Your task to perform on an android device: Open Google Chrome and click the shortcut for Amazon.com Image 0: 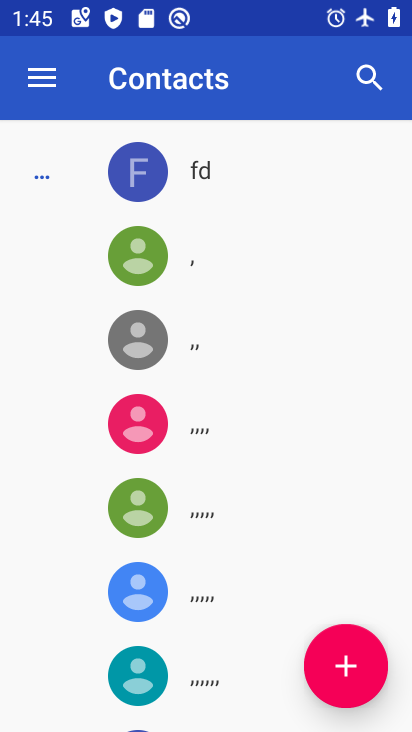
Step 0: press home button
Your task to perform on an android device: Open Google Chrome and click the shortcut for Amazon.com Image 1: 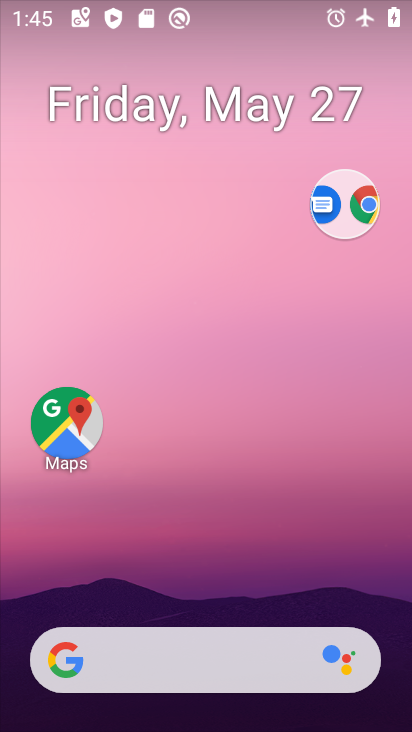
Step 1: drag from (178, 603) to (218, 225)
Your task to perform on an android device: Open Google Chrome and click the shortcut for Amazon.com Image 2: 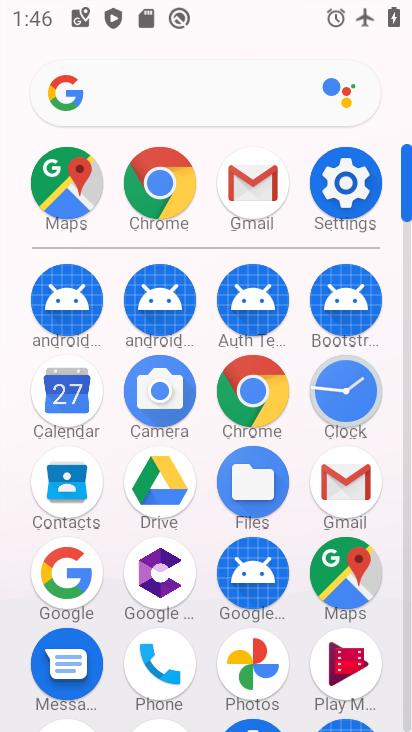
Step 2: click (252, 399)
Your task to perform on an android device: Open Google Chrome and click the shortcut for Amazon.com Image 3: 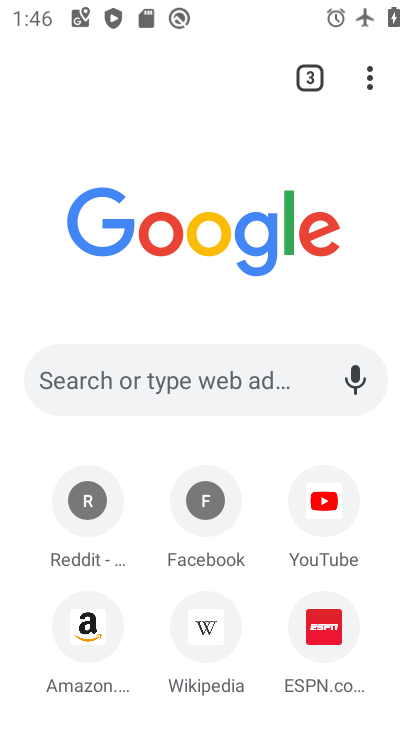
Step 3: click (219, 376)
Your task to perform on an android device: Open Google Chrome and click the shortcut for Amazon.com Image 4: 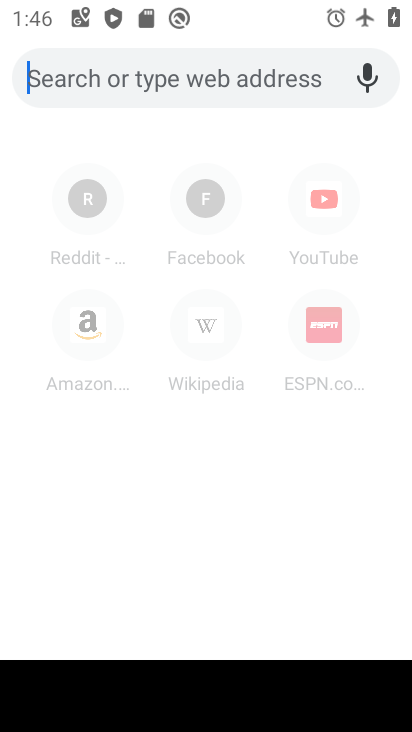
Step 4: task complete